Your task to perform on an android device: turn off priority inbox in the gmail app Image 0: 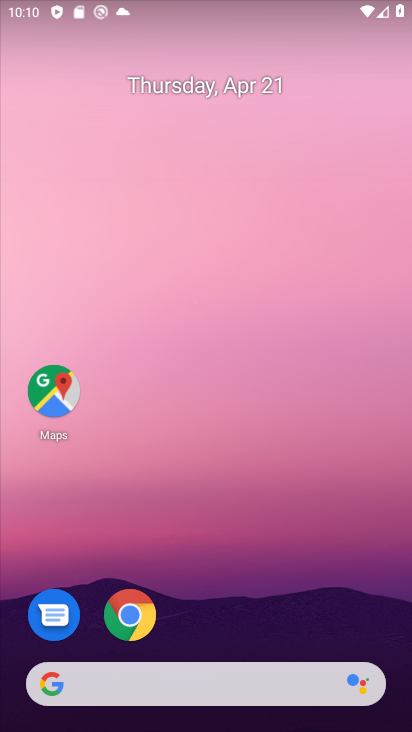
Step 0: drag from (216, 647) to (238, 74)
Your task to perform on an android device: turn off priority inbox in the gmail app Image 1: 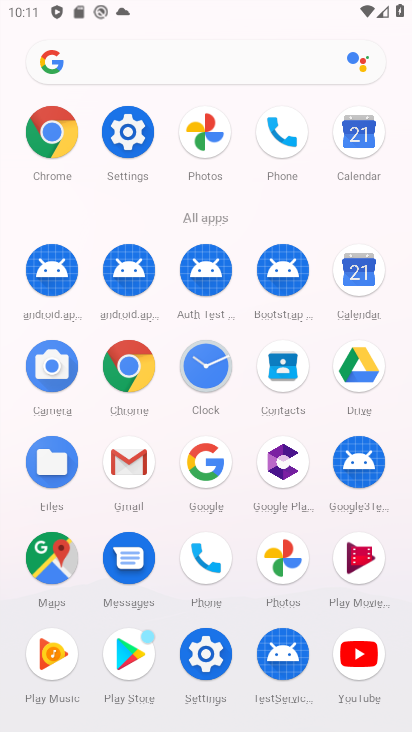
Step 1: click (126, 452)
Your task to perform on an android device: turn off priority inbox in the gmail app Image 2: 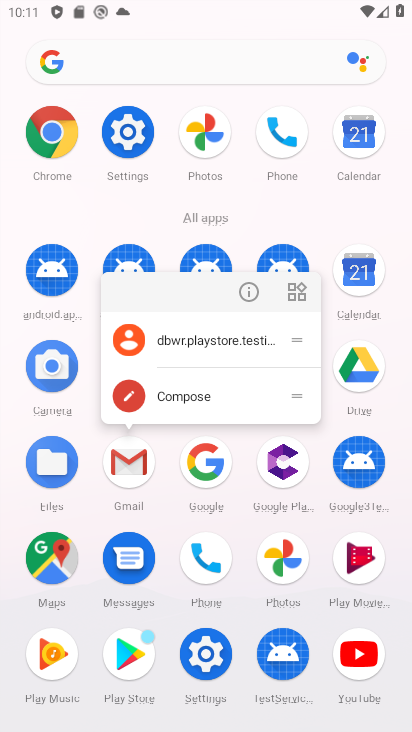
Step 2: click (127, 457)
Your task to perform on an android device: turn off priority inbox in the gmail app Image 3: 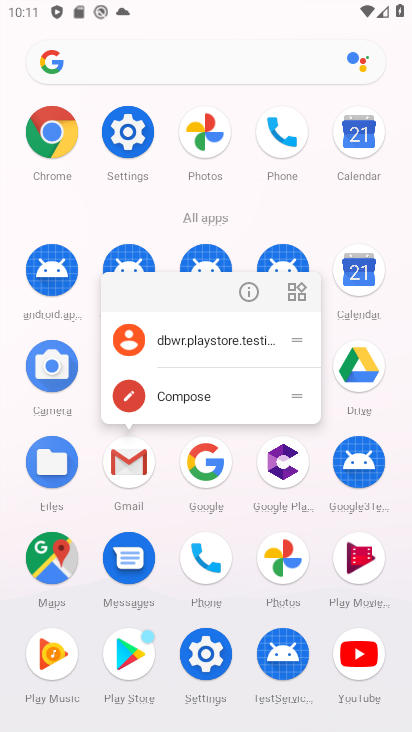
Step 3: click (32, 208)
Your task to perform on an android device: turn off priority inbox in the gmail app Image 4: 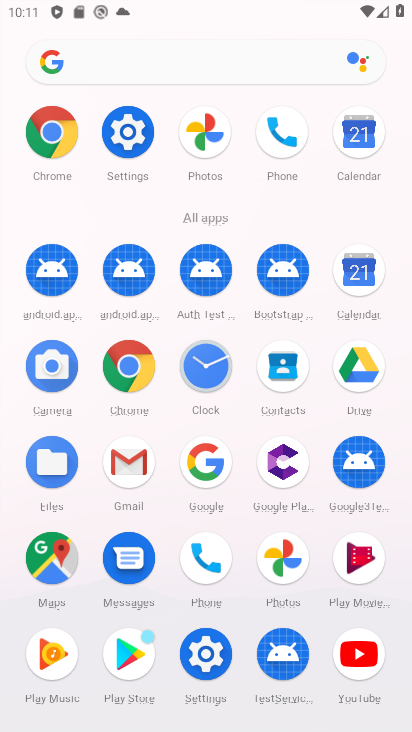
Step 4: click (126, 453)
Your task to perform on an android device: turn off priority inbox in the gmail app Image 5: 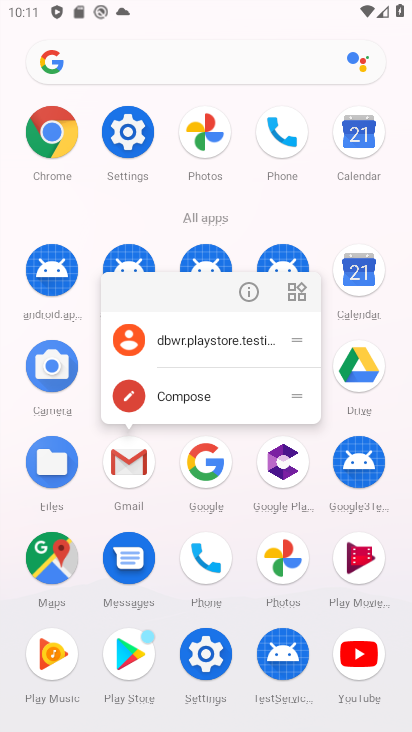
Step 5: click (129, 456)
Your task to perform on an android device: turn off priority inbox in the gmail app Image 6: 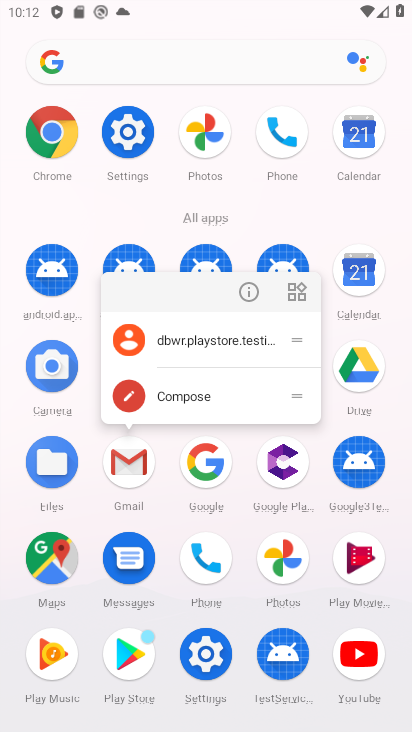
Step 6: click (122, 452)
Your task to perform on an android device: turn off priority inbox in the gmail app Image 7: 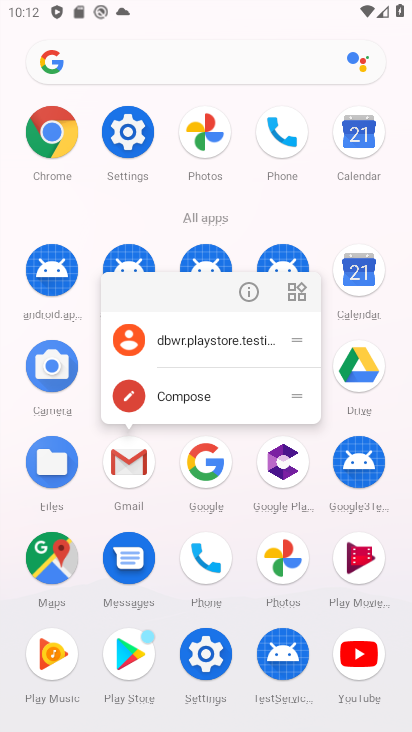
Step 7: click (123, 456)
Your task to perform on an android device: turn off priority inbox in the gmail app Image 8: 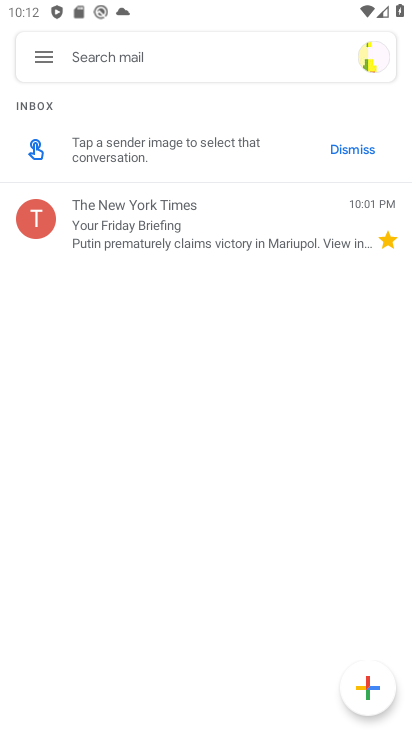
Step 8: click (43, 57)
Your task to perform on an android device: turn off priority inbox in the gmail app Image 9: 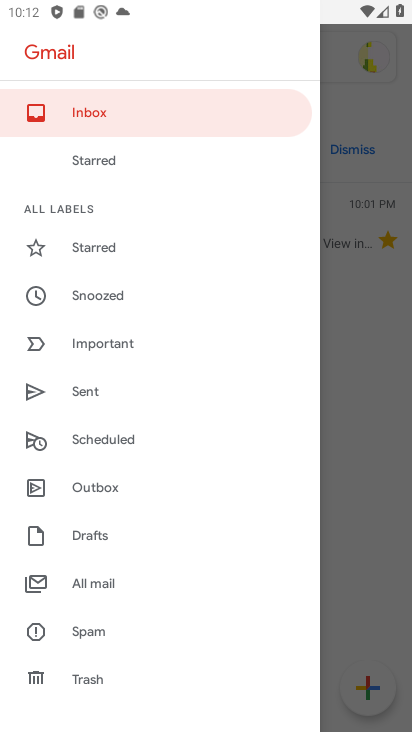
Step 9: drag from (149, 653) to (187, 79)
Your task to perform on an android device: turn off priority inbox in the gmail app Image 10: 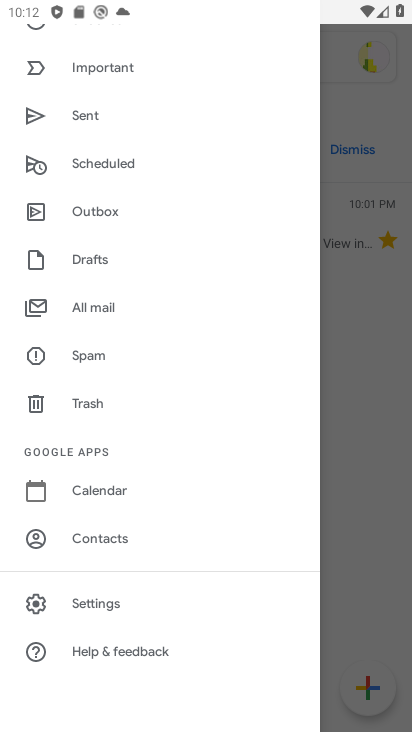
Step 10: click (131, 598)
Your task to perform on an android device: turn off priority inbox in the gmail app Image 11: 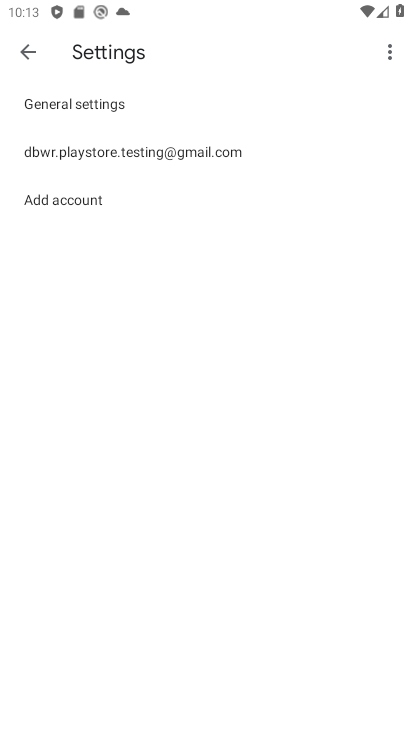
Step 11: click (251, 146)
Your task to perform on an android device: turn off priority inbox in the gmail app Image 12: 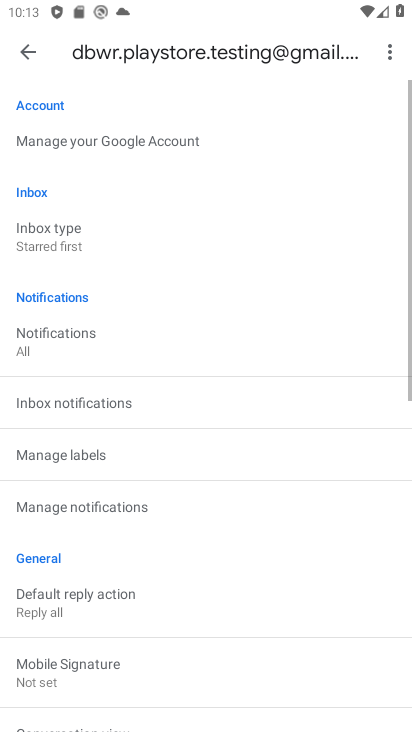
Step 12: click (83, 236)
Your task to perform on an android device: turn off priority inbox in the gmail app Image 13: 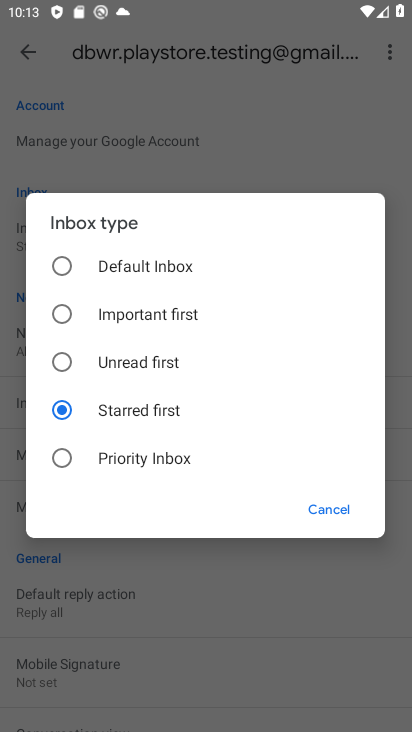
Step 13: click (56, 259)
Your task to perform on an android device: turn off priority inbox in the gmail app Image 14: 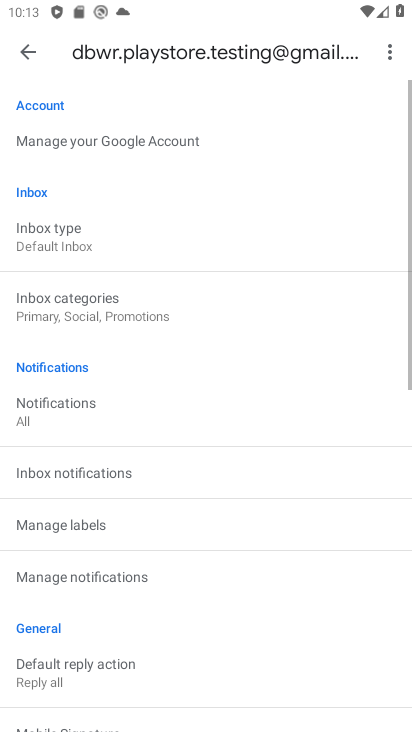
Step 14: task complete